Your task to perform on an android device: Go to Amazon Image 0: 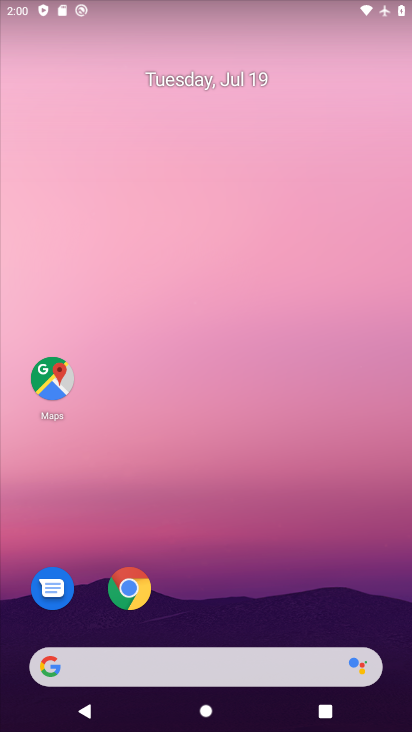
Step 0: press home button
Your task to perform on an android device: Go to Amazon Image 1: 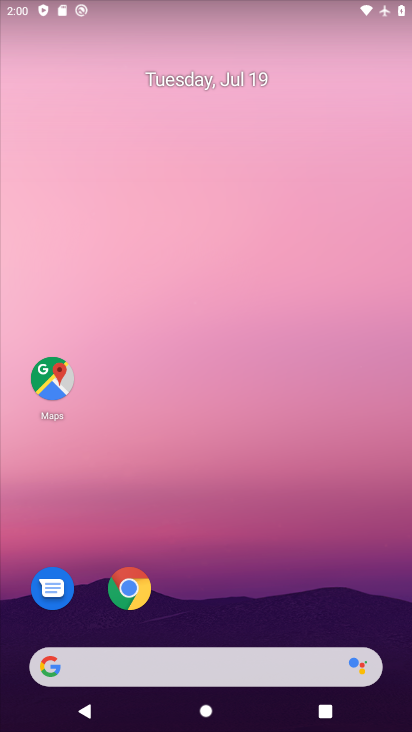
Step 1: click (58, 671)
Your task to perform on an android device: Go to Amazon Image 2: 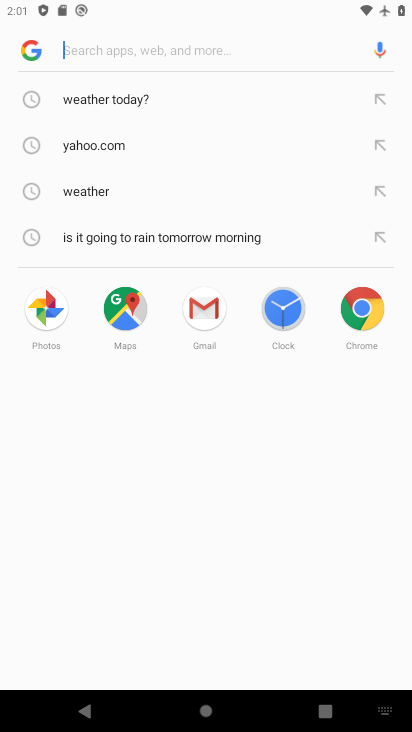
Step 2: type "Amazon"
Your task to perform on an android device: Go to Amazon Image 3: 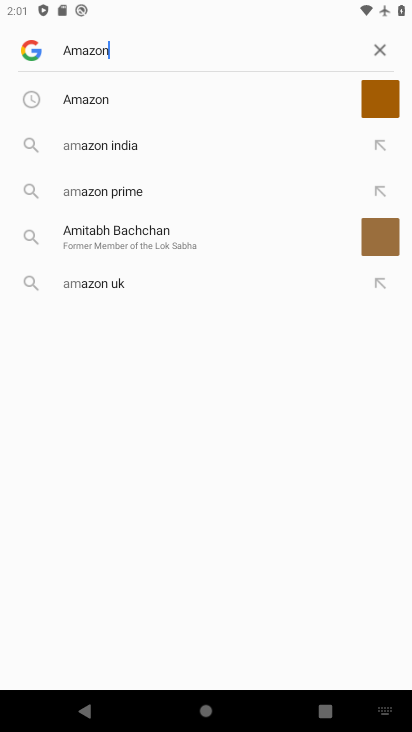
Step 3: press enter
Your task to perform on an android device: Go to Amazon Image 4: 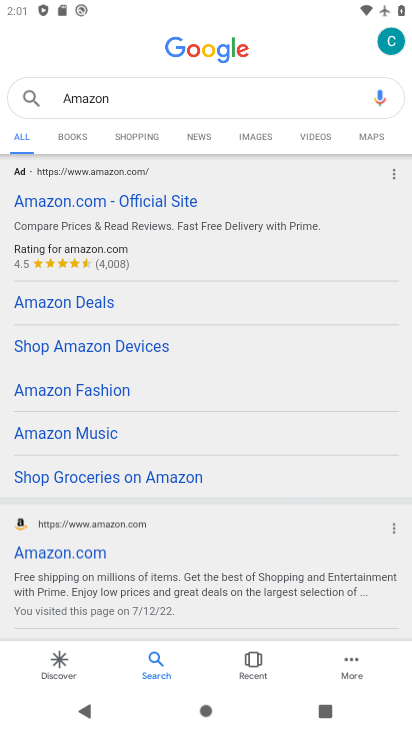
Step 4: click (96, 201)
Your task to perform on an android device: Go to Amazon Image 5: 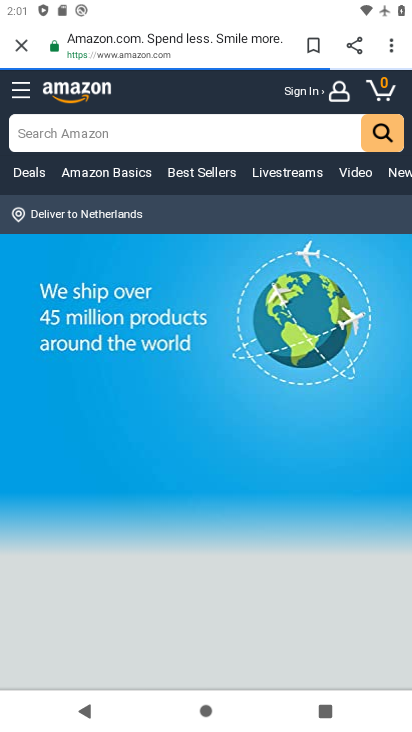
Step 5: task complete